Your task to perform on an android device: Show me popular games on the Play Store Image 0: 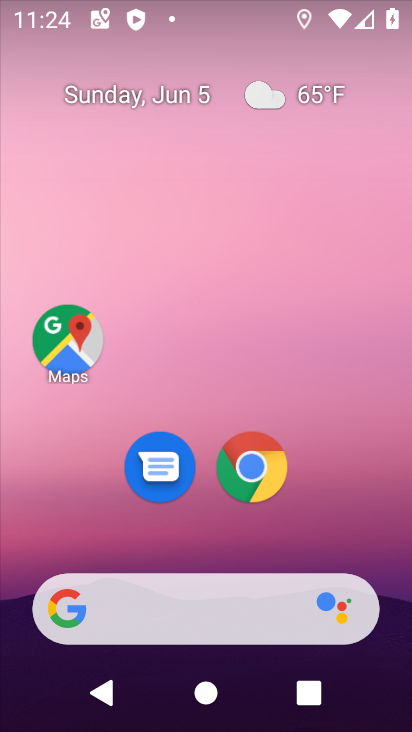
Step 0: press home button
Your task to perform on an android device: Show me popular games on the Play Store Image 1: 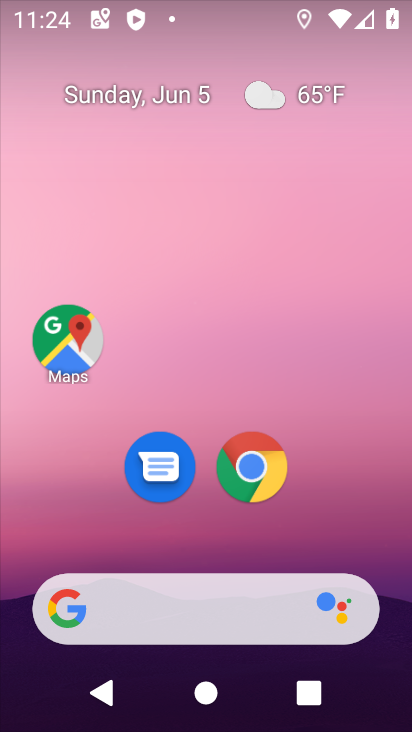
Step 1: drag from (409, 658) to (318, 334)
Your task to perform on an android device: Show me popular games on the Play Store Image 2: 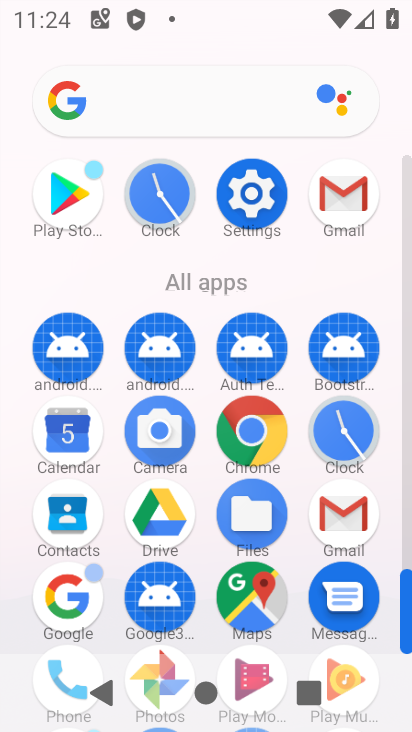
Step 2: drag from (403, 609) to (397, 676)
Your task to perform on an android device: Show me popular games on the Play Store Image 3: 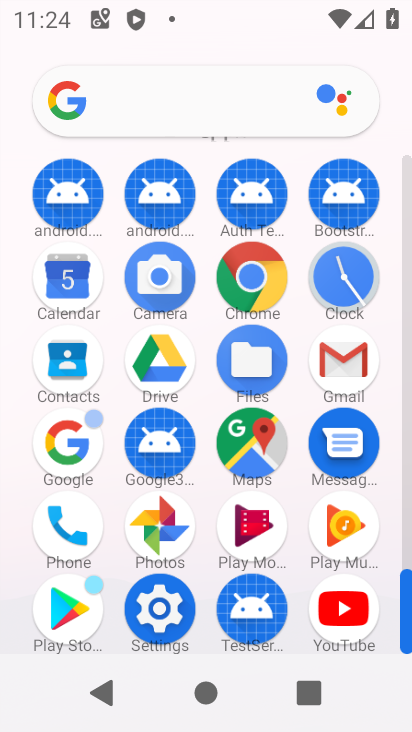
Step 3: click (49, 603)
Your task to perform on an android device: Show me popular games on the Play Store Image 4: 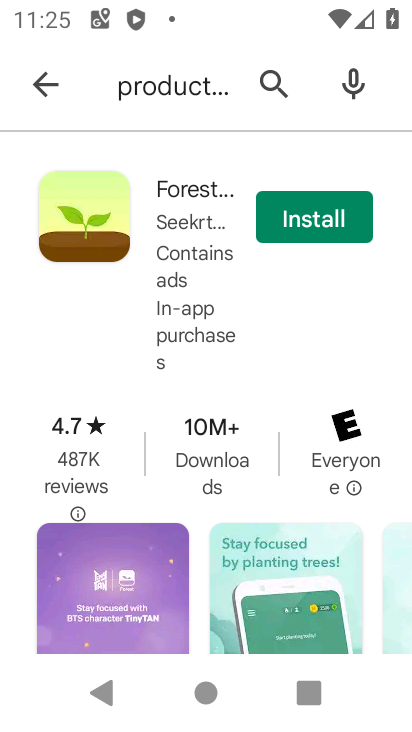
Step 4: click (269, 84)
Your task to perform on an android device: Show me popular games on the Play Store Image 5: 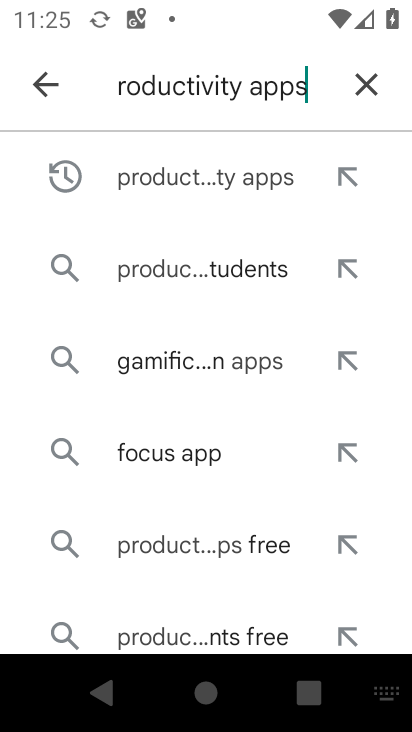
Step 5: click (372, 87)
Your task to perform on an android device: Show me popular games on the Play Store Image 6: 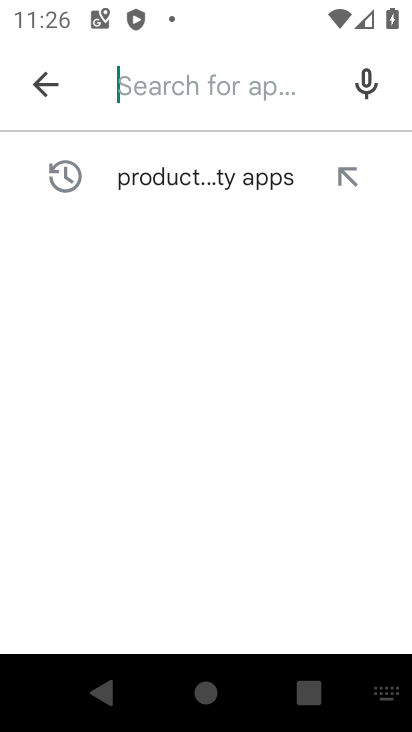
Step 6: type "popular games"
Your task to perform on an android device: Show me popular games on the Play Store Image 7: 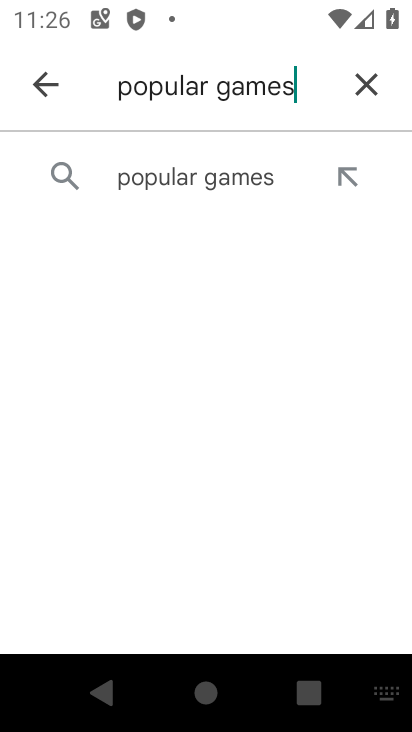
Step 7: click (373, 222)
Your task to perform on an android device: Show me popular games on the Play Store Image 8: 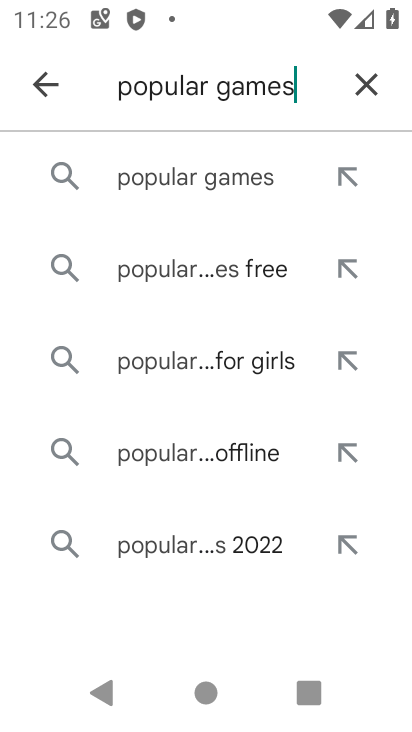
Step 8: drag from (354, 205) to (288, 171)
Your task to perform on an android device: Show me popular games on the Play Store Image 9: 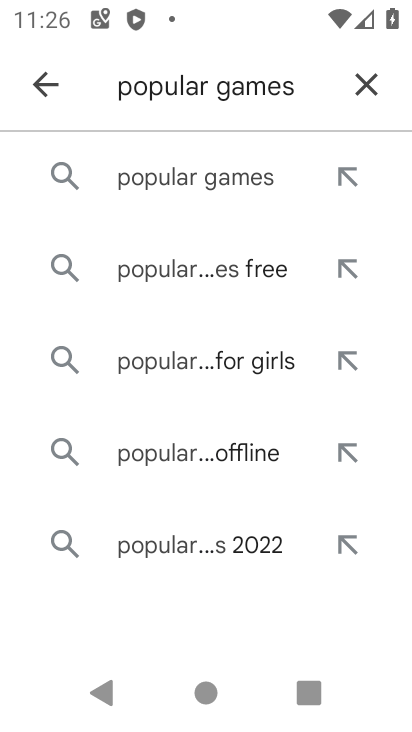
Step 9: click (251, 173)
Your task to perform on an android device: Show me popular games on the Play Store Image 10: 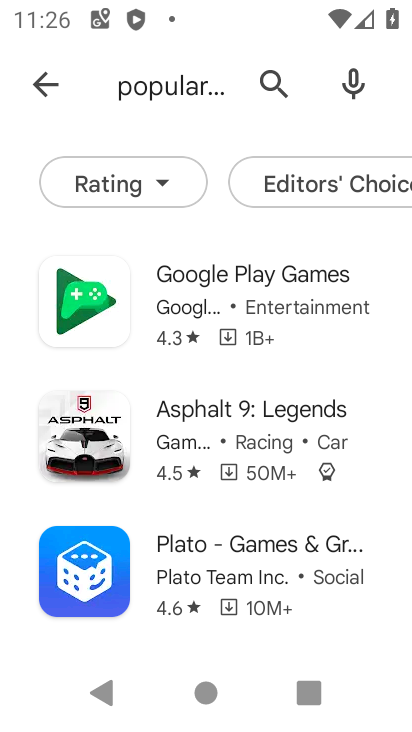
Step 10: task complete